Your task to perform on an android device: Look up the best rated wireless earbuds on Ali Express Image 0: 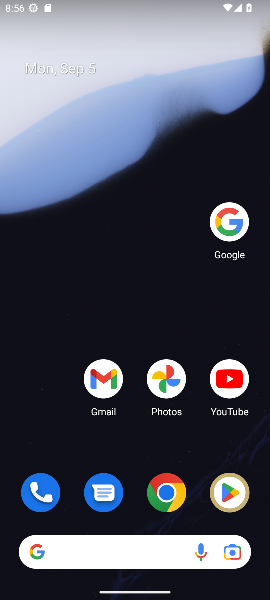
Step 0: drag from (249, 223) to (208, 221)
Your task to perform on an android device: Look up the best rated wireless earbuds on Ali Express Image 1: 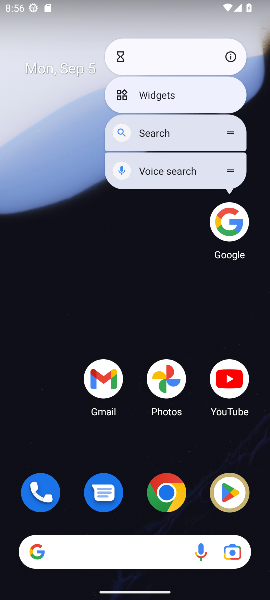
Step 1: click (217, 218)
Your task to perform on an android device: Look up the best rated wireless earbuds on Ali Express Image 2: 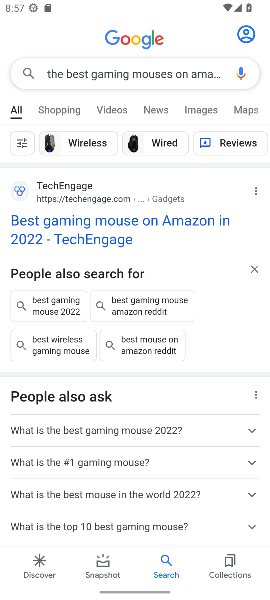
Step 2: click (205, 67)
Your task to perform on an android device: Look up the best rated wireless earbuds on Ali Express Image 3: 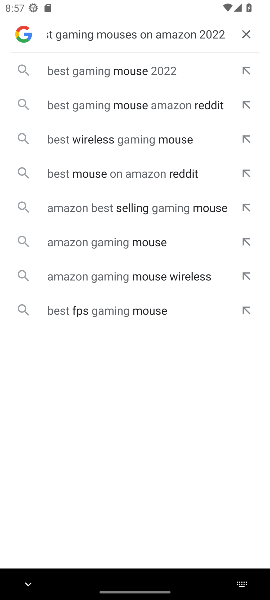
Step 3: click (244, 26)
Your task to perform on an android device: Look up the best rated wireless earbuds on Ali Express Image 4: 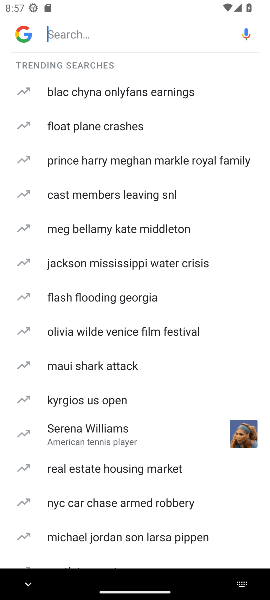
Step 4: click (130, 32)
Your task to perform on an android device: Look up the best rated wireless earbuds on Ali Express Image 5: 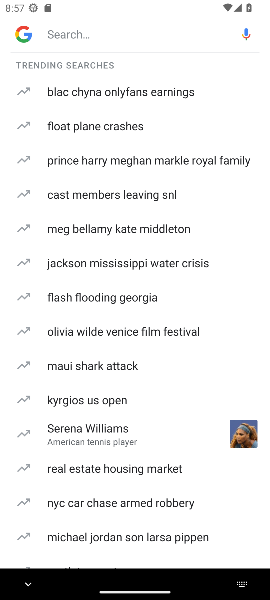
Step 5: click (81, 29)
Your task to perform on an android device: Look up the best rated wireless earbuds on Ali Express Image 6: 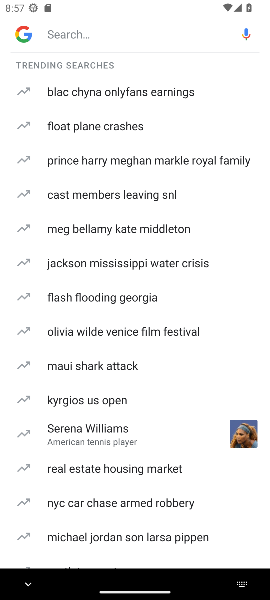
Step 6: type "the best rated wireless earbuds on Ali Express "
Your task to perform on an android device: Look up the best rated wireless earbuds on Ali Express Image 7: 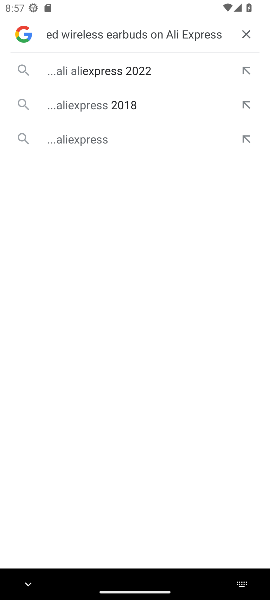
Step 7: click (110, 68)
Your task to perform on an android device: Look up the best rated wireless earbuds on Ali Express Image 8: 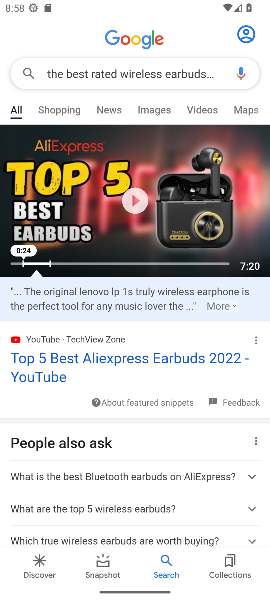
Step 8: drag from (133, 546) to (160, 382)
Your task to perform on an android device: Look up the best rated wireless earbuds on Ali Express Image 9: 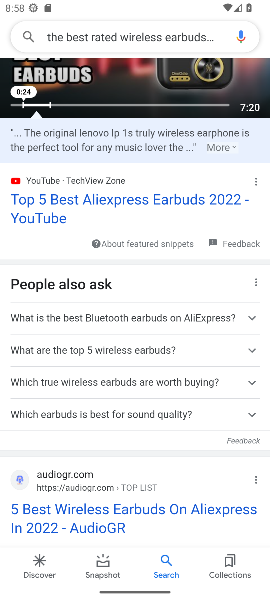
Step 9: click (82, 200)
Your task to perform on an android device: Look up the best rated wireless earbuds on Ali Express Image 10: 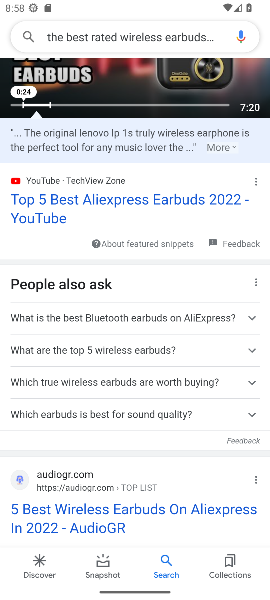
Step 10: drag from (98, 434) to (102, 352)
Your task to perform on an android device: Look up the best rated wireless earbuds on Ali Express Image 11: 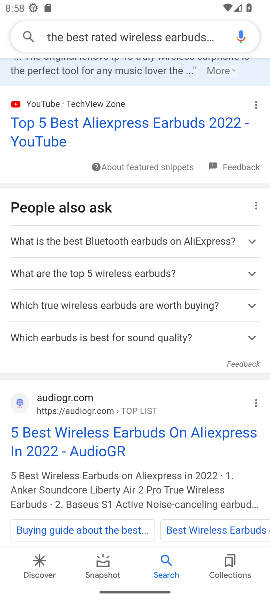
Step 11: click (89, 429)
Your task to perform on an android device: Look up the best rated wireless earbuds on Ali Express Image 12: 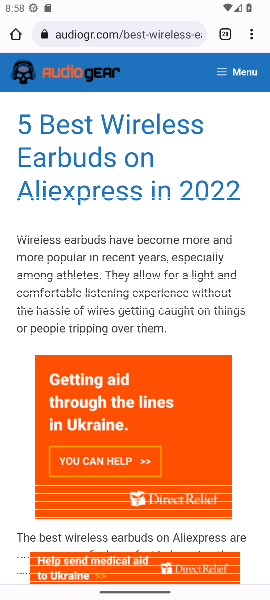
Step 12: task complete